Your task to perform on an android device: Open maps Image 0: 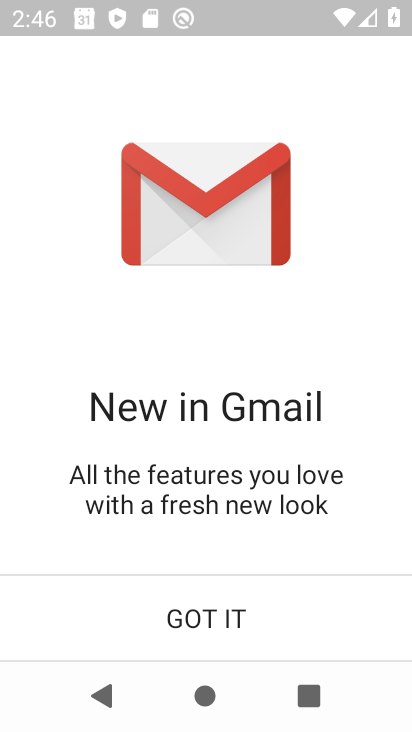
Step 0: press home button
Your task to perform on an android device: Open maps Image 1: 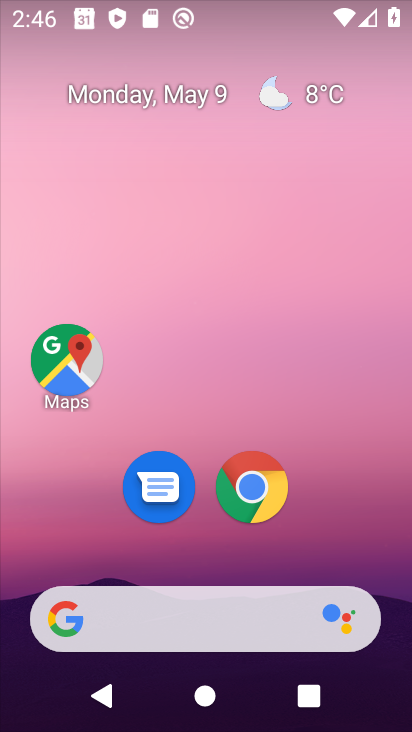
Step 1: click (65, 362)
Your task to perform on an android device: Open maps Image 2: 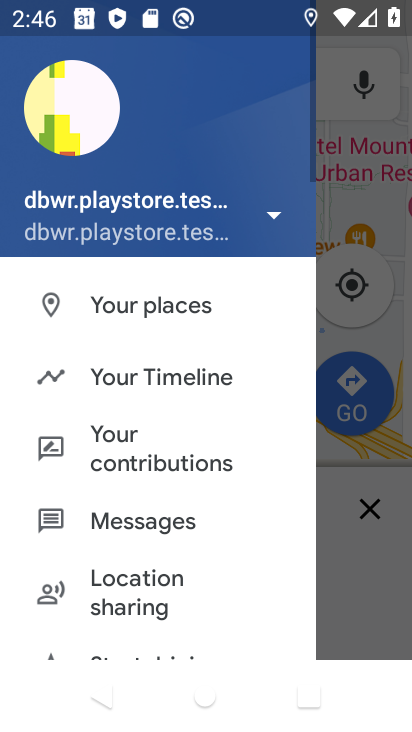
Step 2: click (339, 517)
Your task to perform on an android device: Open maps Image 3: 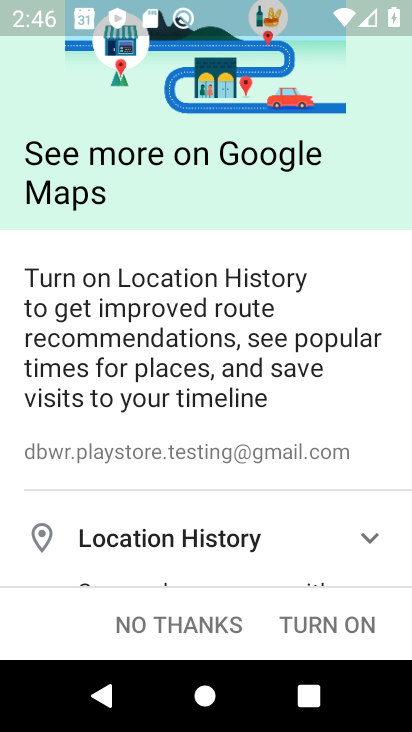
Step 3: click (336, 632)
Your task to perform on an android device: Open maps Image 4: 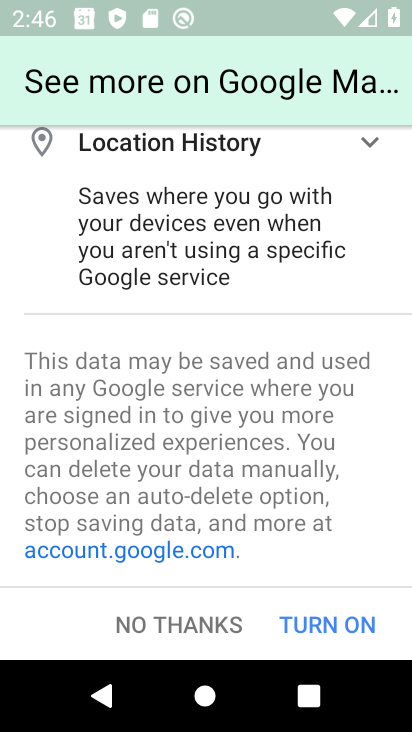
Step 4: click (337, 626)
Your task to perform on an android device: Open maps Image 5: 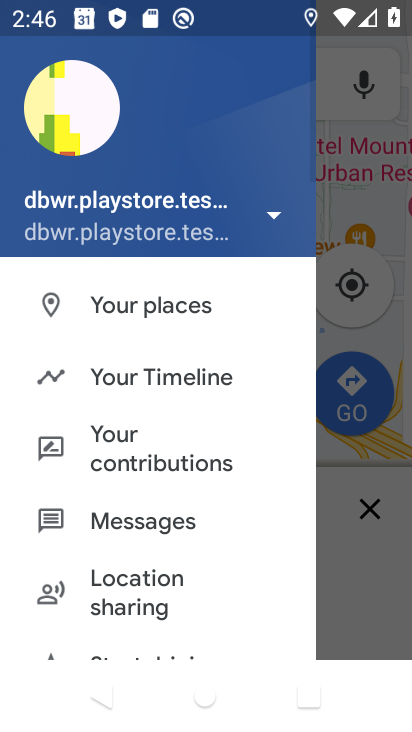
Step 5: click (339, 533)
Your task to perform on an android device: Open maps Image 6: 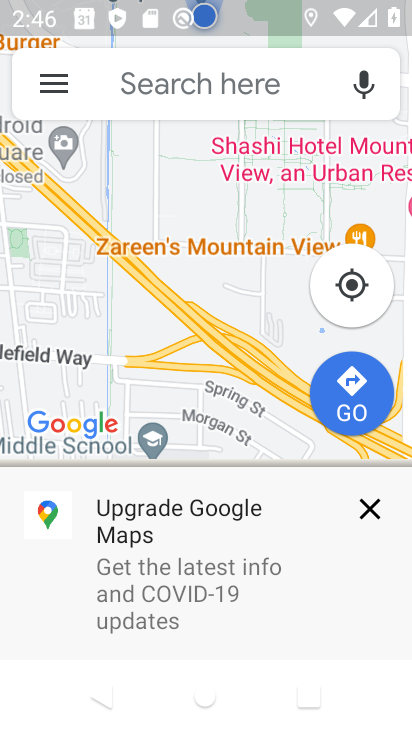
Step 6: task complete